Your task to perform on an android device: Go to battery settings Image 0: 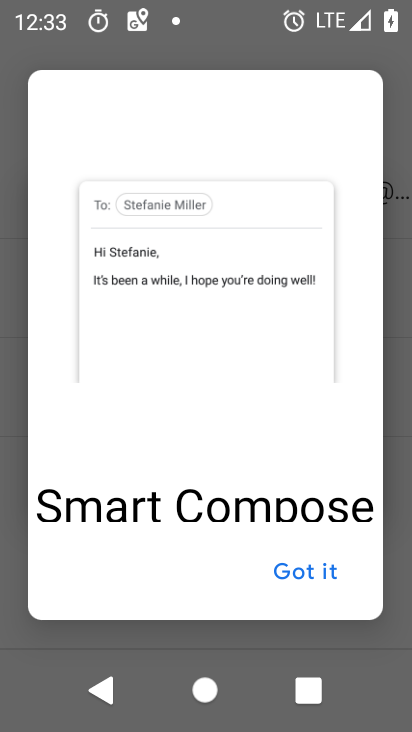
Step 0: press home button
Your task to perform on an android device: Go to battery settings Image 1: 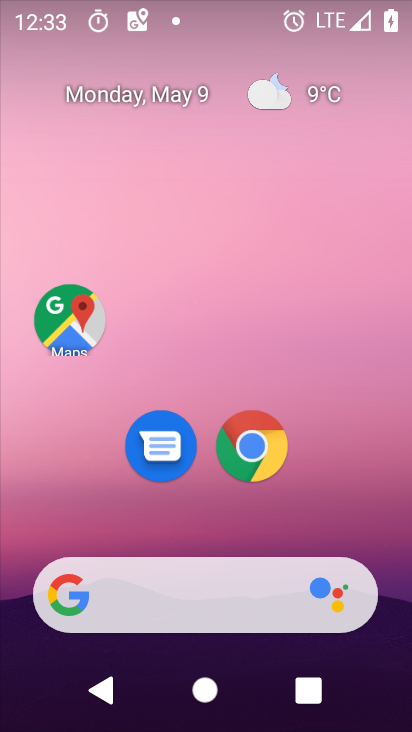
Step 1: drag from (387, 523) to (328, 60)
Your task to perform on an android device: Go to battery settings Image 2: 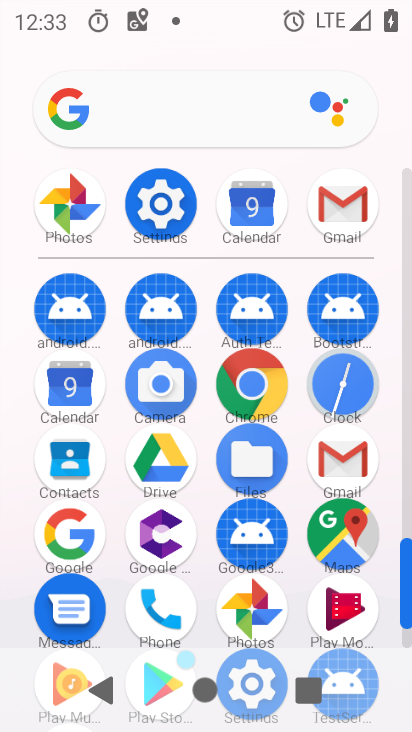
Step 2: click (157, 220)
Your task to perform on an android device: Go to battery settings Image 3: 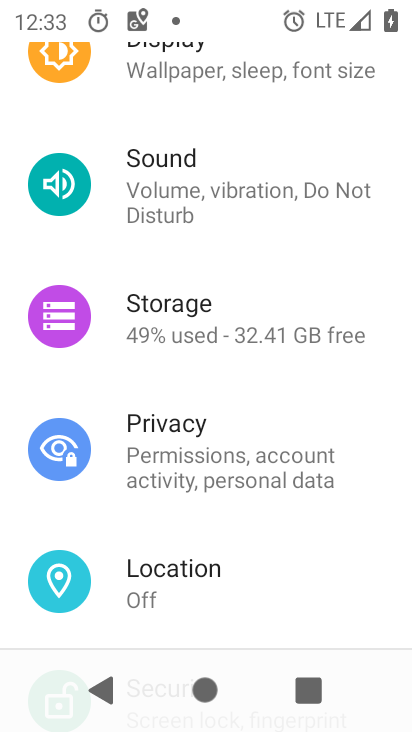
Step 3: drag from (261, 483) to (278, 206)
Your task to perform on an android device: Go to battery settings Image 4: 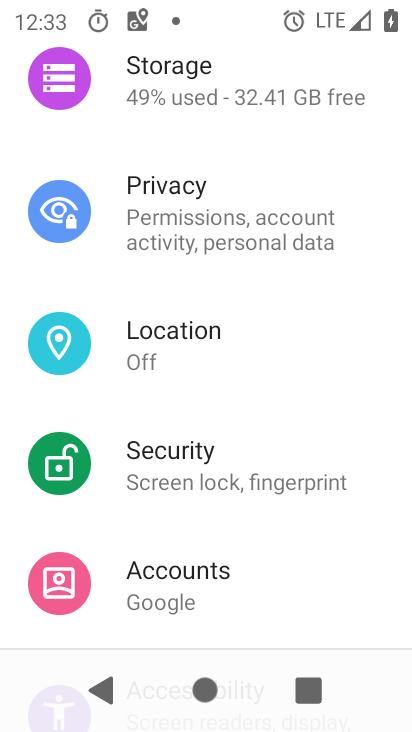
Step 4: drag from (221, 440) to (248, 244)
Your task to perform on an android device: Go to battery settings Image 5: 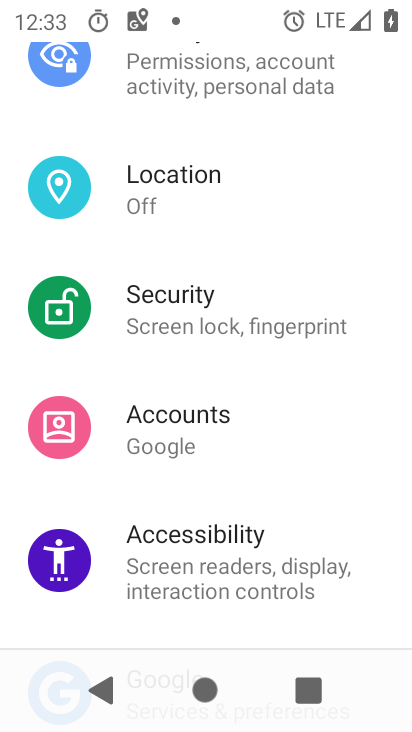
Step 5: drag from (263, 222) to (288, 523)
Your task to perform on an android device: Go to battery settings Image 6: 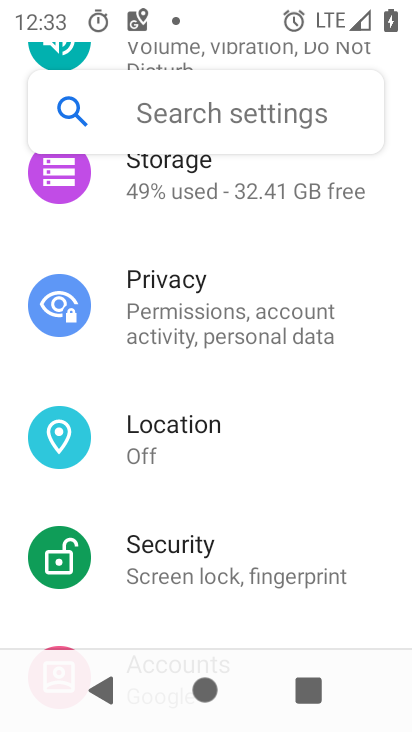
Step 6: drag from (293, 203) to (302, 465)
Your task to perform on an android device: Go to battery settings Image 7: 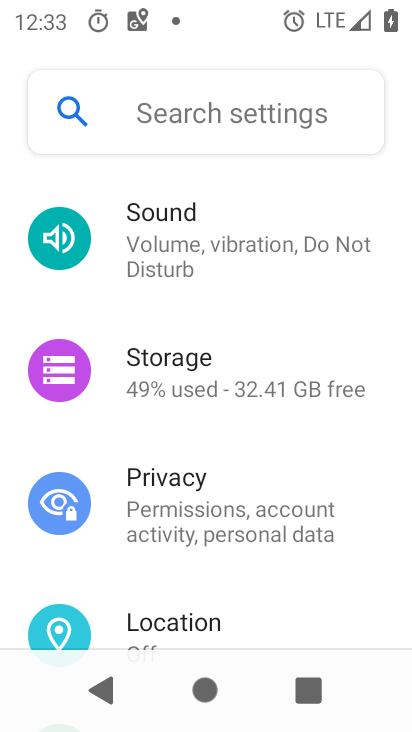
Step 7: drag from (303, 297) to (307, 468)
Your task to perform on an android device: Go to battery settings Image 8: 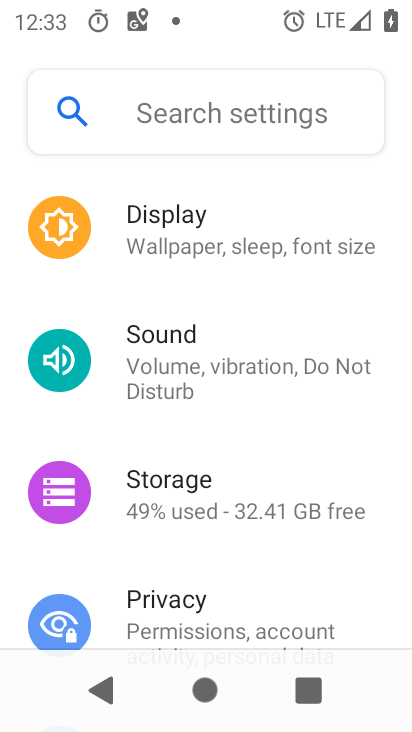
Step 8: drag from (198, 268) to (220, 467)
Your task to perform on an android device: Go to battery settings Image 9: 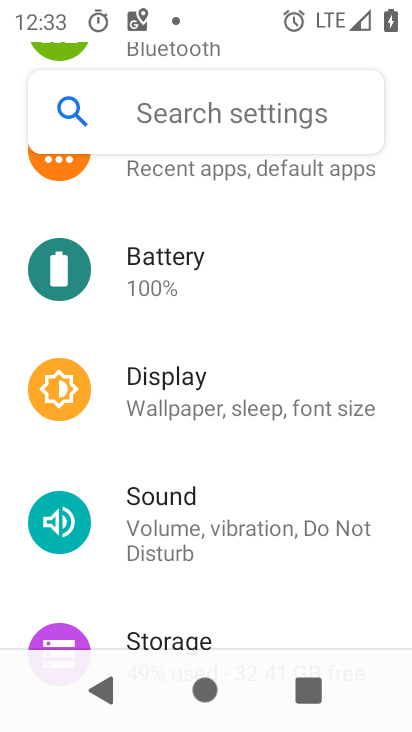
Step 9: click (166, 282)
Your task to perform on an android device: Go to battery settings Image 10: 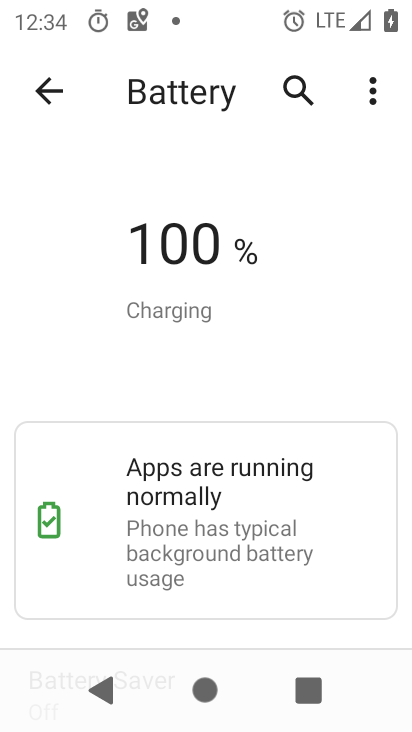
Step 10: task complete